Your task to perform on an android device: Open Google Chrome and click the shortcut for Amazon.com Image 0: 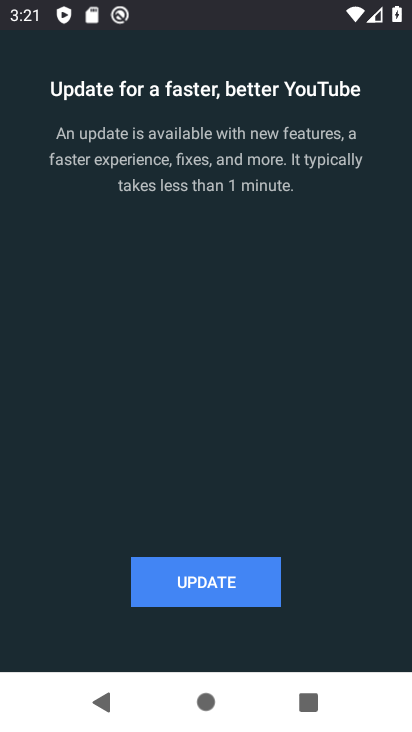
Step 0: press home button
Your task to perform on an android device: Open Google Chrome and click the shortcut for Amazon.com Image 1: 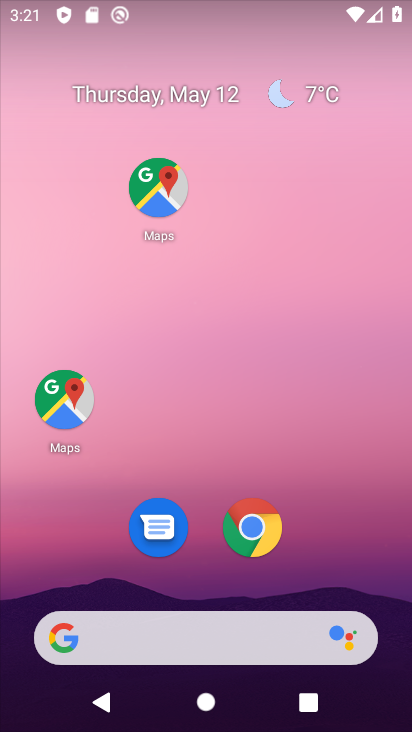
Step 1: click (253, 545)
Your task to perform on an android device: Open Google Chrome and click the shortcut for Amazon.com Image 2: 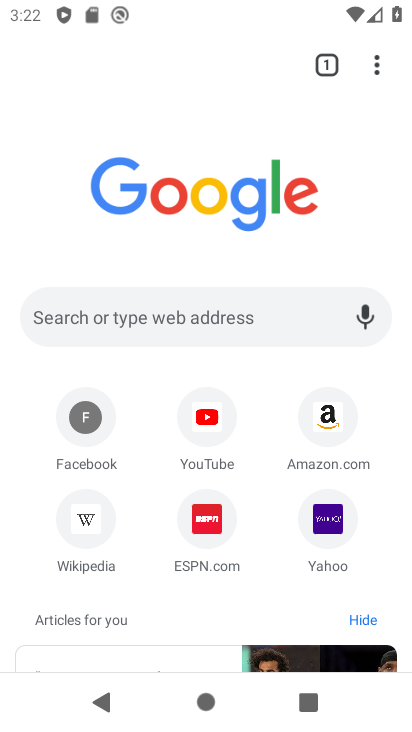
Step 2: click (357, 406)
Your task to perform on an android device: Open Google Chrome and click the shortcut for Amazon.com Image 3: 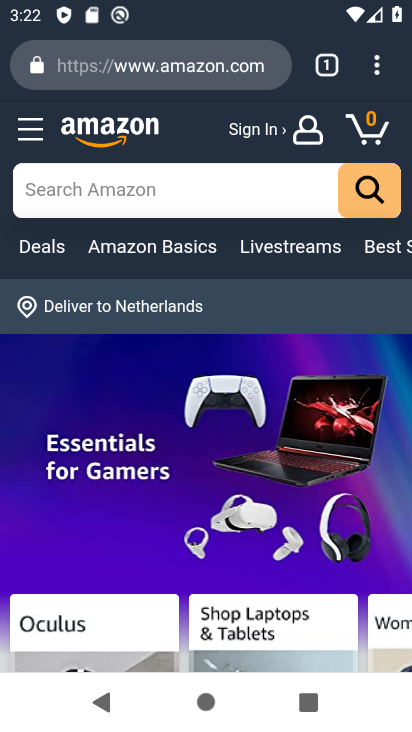
Step 3: task complete